Your task to perform on an android device: Open Amazon Image 0: 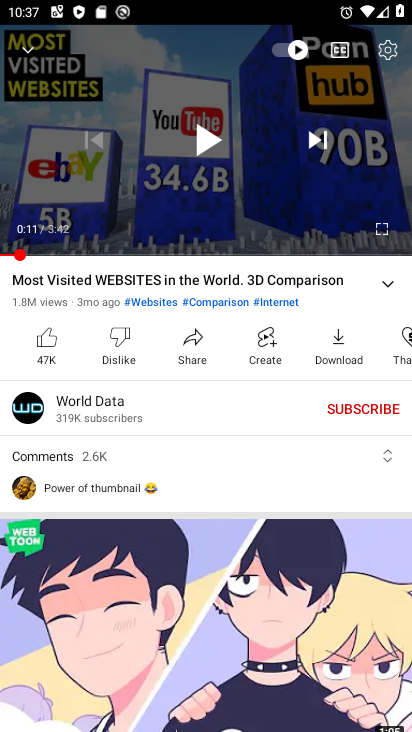
Step 0: press home button
Your task to perform on an android device: Open Amazon Image 1: 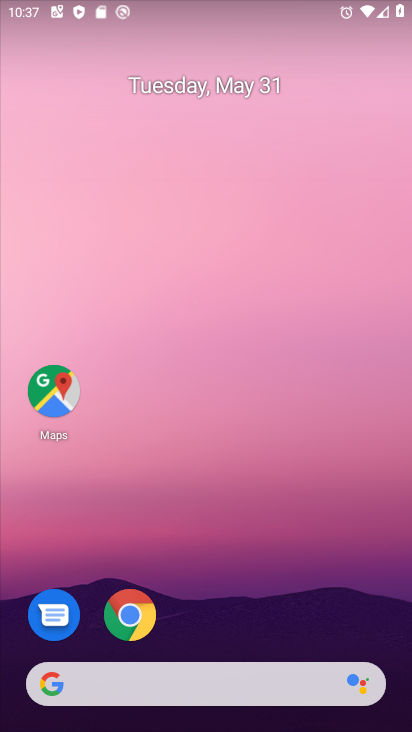
Step 1: drag from (285, 609) to (301, 3)
Your task to perform on an android device: Open Amazon Image 2: 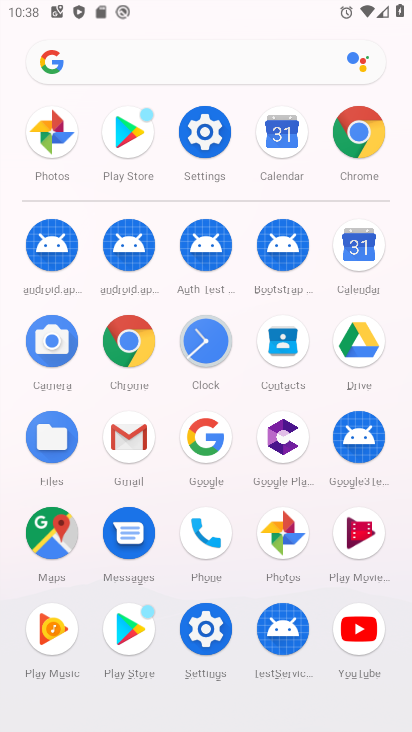
Step 2: click (341, 114)
Your task to perform on an android device: Open Amazon Image 3: 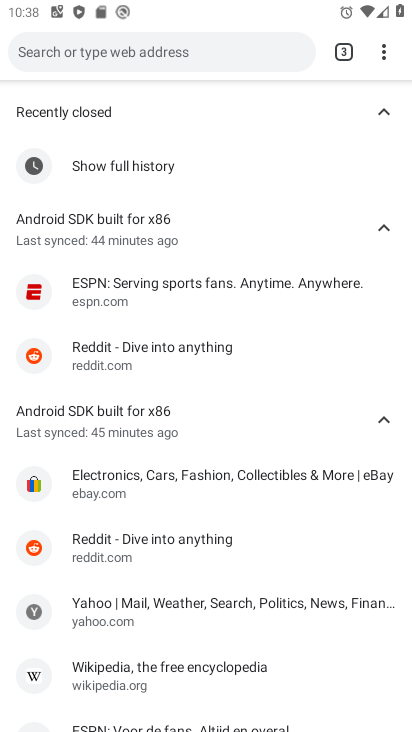
Step 3: click (59, 72)
Your task to perform on an android device: Open Amazon Image 4: 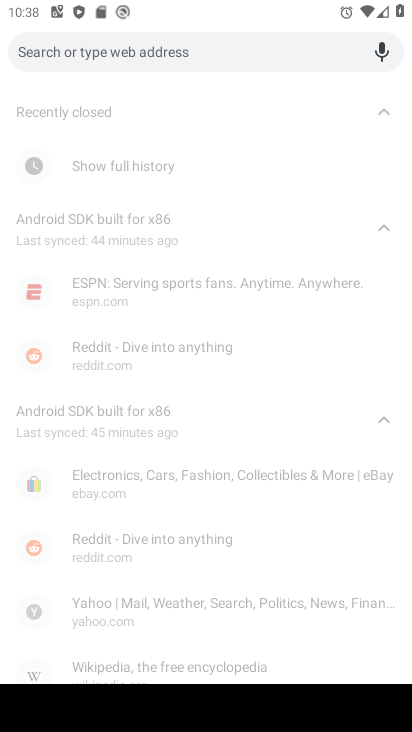
Step 4: type "amazon"
Your task to perform on an android device: Open Amazon Image 5: 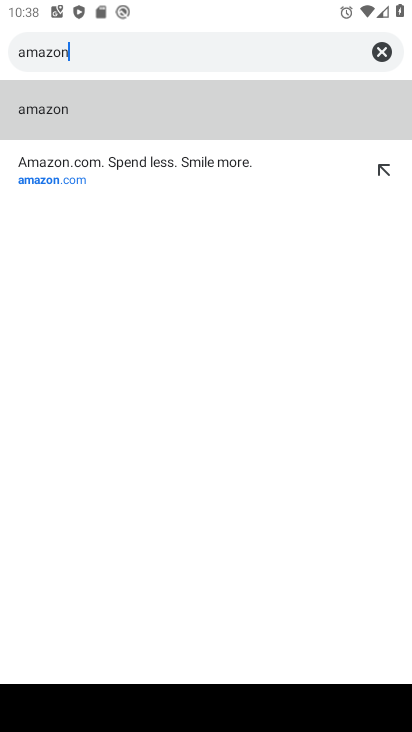
Step 5: click (64, 178)
Your task to perform on an android device: Open Amazon Image 6: 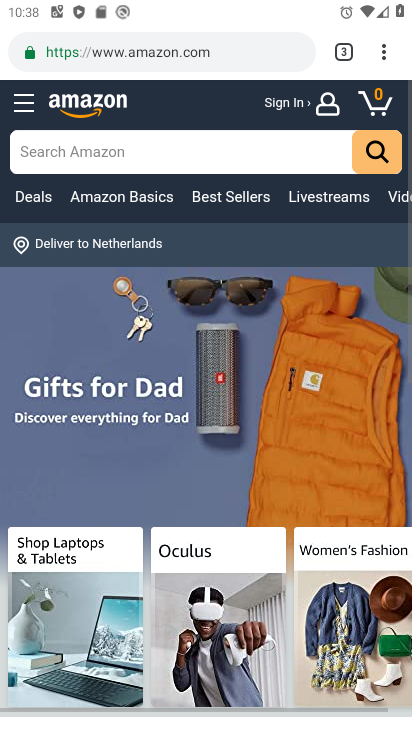
Step 6: task complete